Your task to perform on an android device: Open settings on Google Maps Image 0: 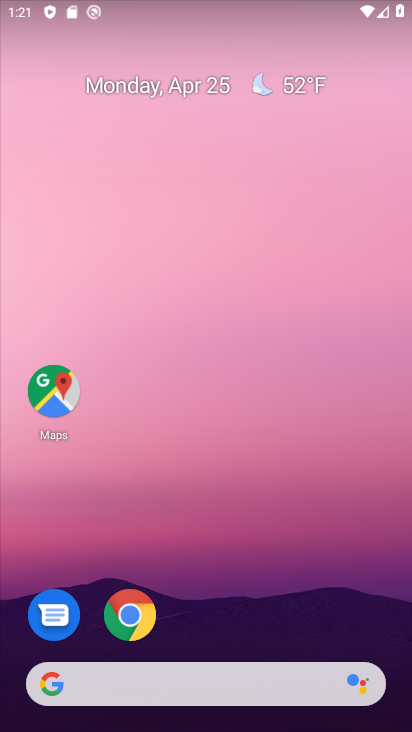
Step 0: click (49, 391)
Your task to perform on an android device: Open settings on Google Maps Image 1: 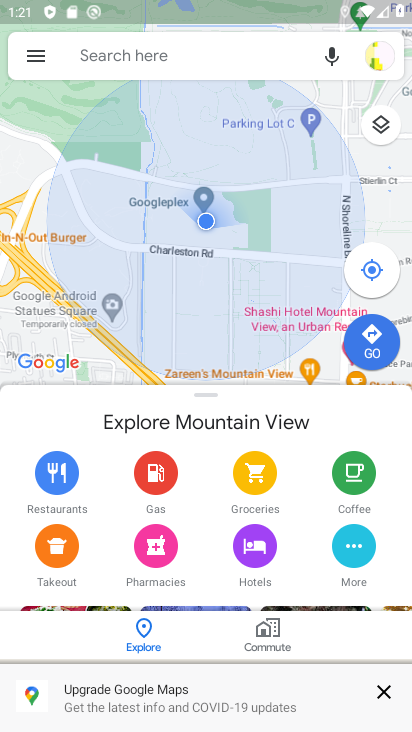
Step 1: click (32, 57)
Your task to perform on an android device: Open settings on Google Maps Image 2: 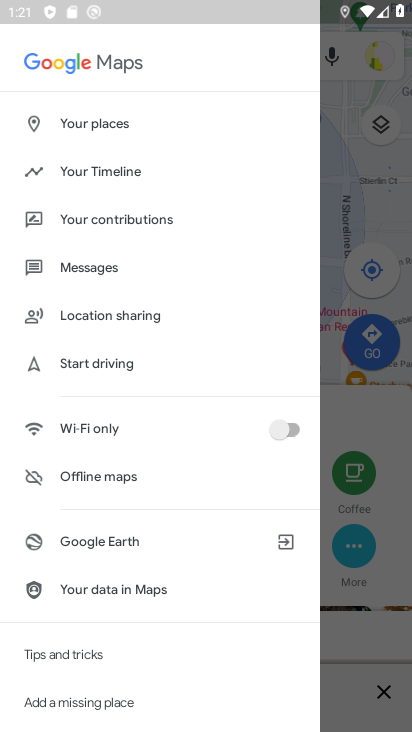
Step 2: drag from (105, 618) to (133, 505)
Your task to perform on an android device: Open settings on Google Maps Image 3: 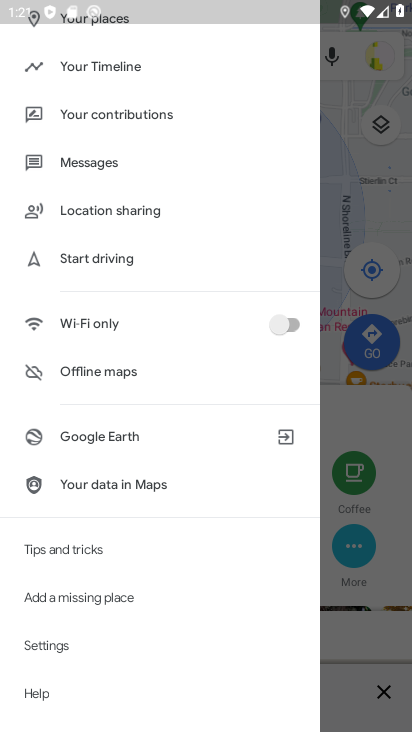
Step 3: drag from (96, 560) to (144, 496)
Your task to perform on an android device: Open settings on Google Maps Image 4: 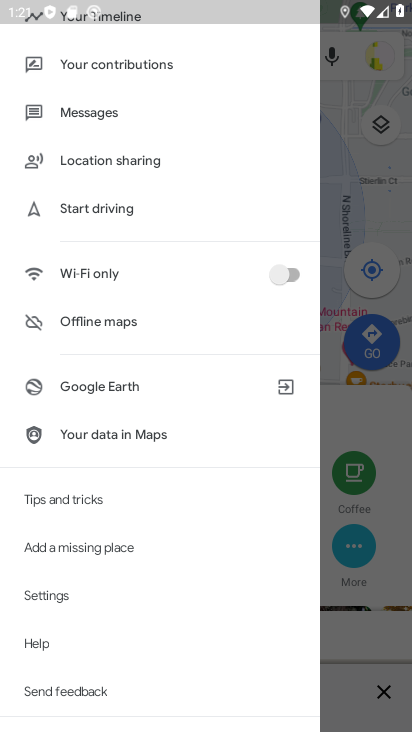
Step 4: click (63, 598)
Your task to perform on an android device: Open settings on Google Maps Image 5: 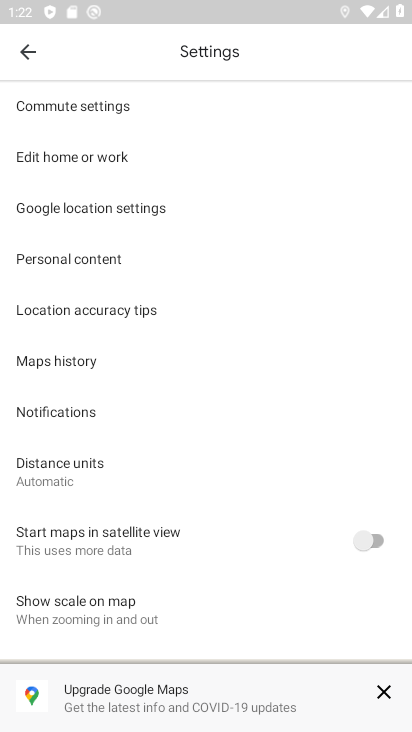
Step 5: task complete